Your task to perform on an android device: show emergency info Image 0: 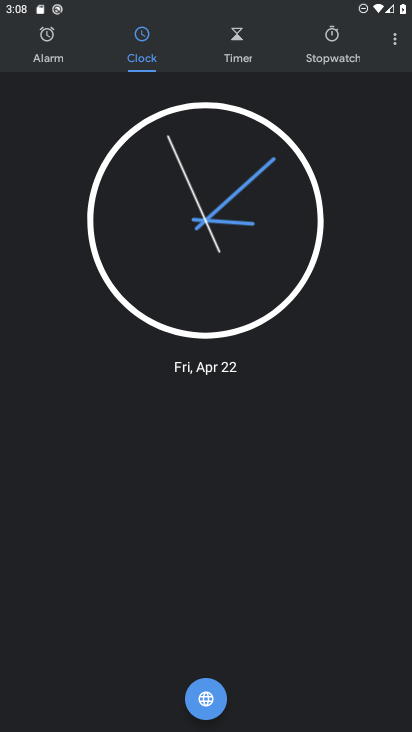
Step 0: press home button
Your task to perform on an android device: show emergency info Image 1: 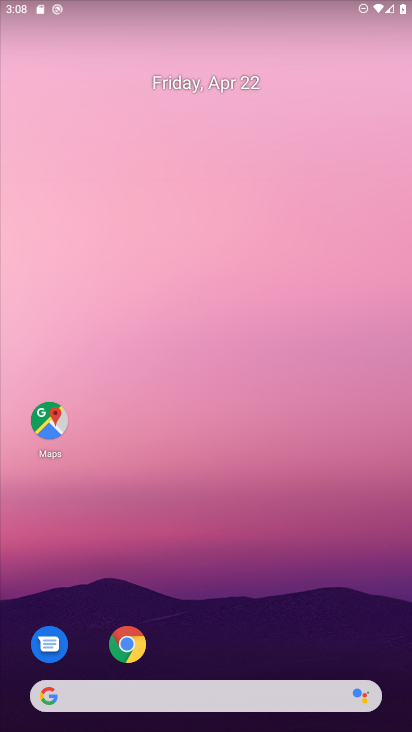
Step 1: drag from (271, 594) to (346, 117)
Your task to perform on an android device: show emergency info Image 2: 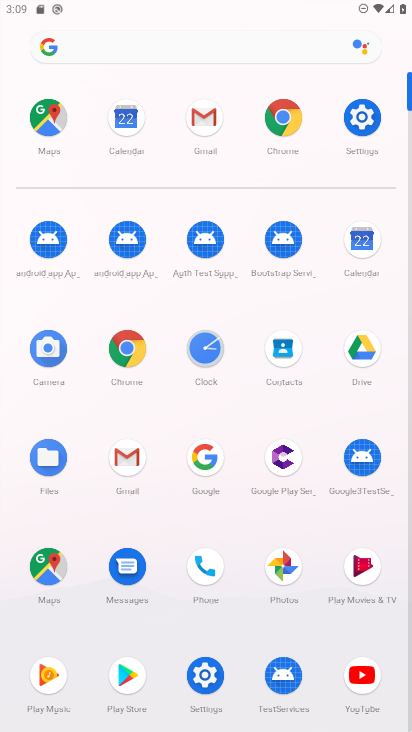
Step 2: click (365, 107)
Your task to perform on an android device: show emergency info Image 3: 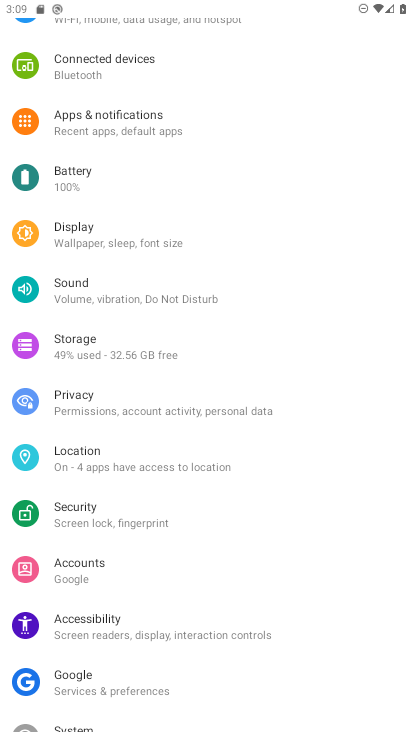
Step 3: drag from (217, 619) to (408, 125)
Your task to perform on an android device: show emergency info Image 4: 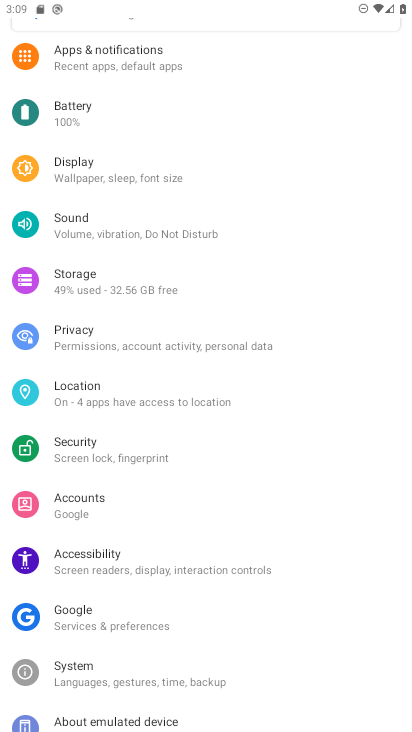
Step 4: drag from (144, 700) to (338, 363)
Your task to perform on an android device: show emergency info Image 5: 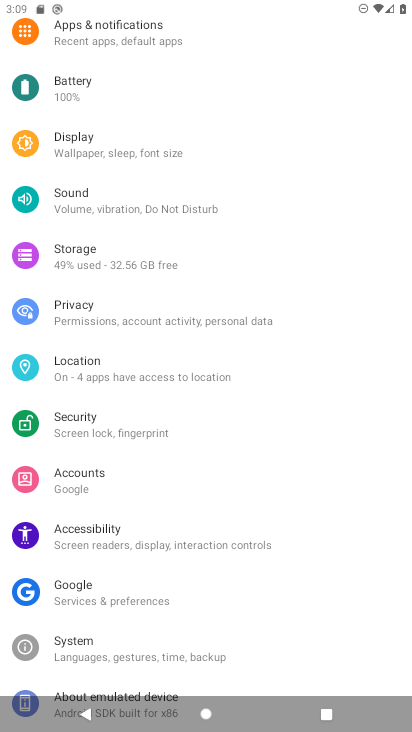
Step 5: click (131, 687)
Your task to perform on an android device: show emergency info Image 6: 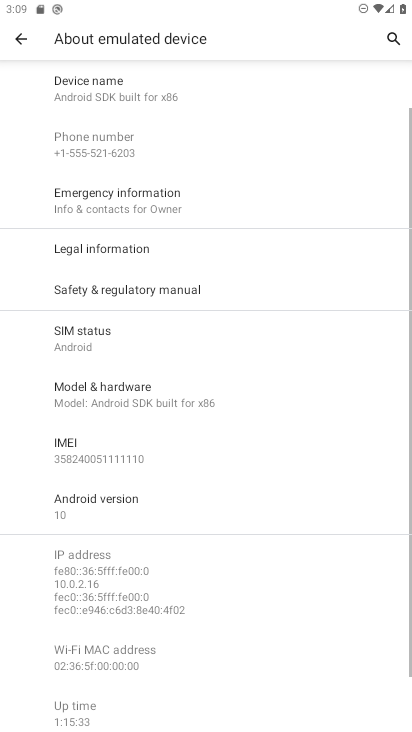
Step 6: click (149, 190)
Your task to perform on an android device: show emergency info Image 7: 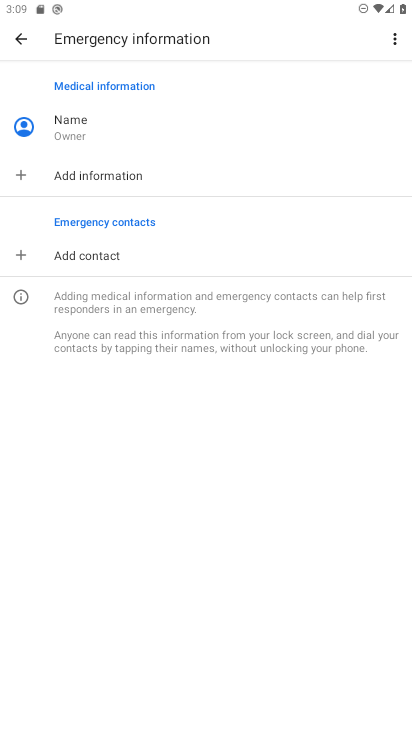
Step 7: task complete